Your task to perform on an android device: What's the weather going to be tomorrow? Image 0: 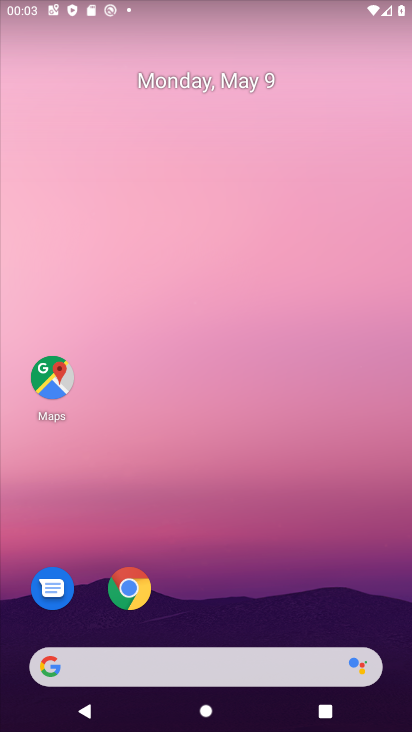
Step 0: click (211, 670)
Your task to perform on an android device: What's the weather going to be tomorrow? Image 1: 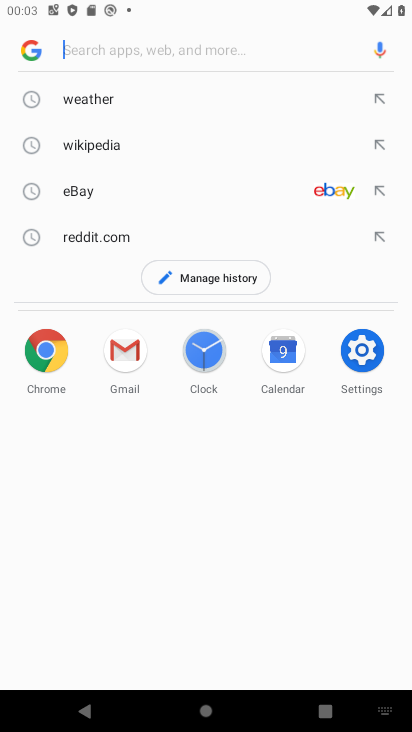
Step 1: click (91, 99)
Your task to perform on an android device: What's the weather going to be tomorrow? Image 2: 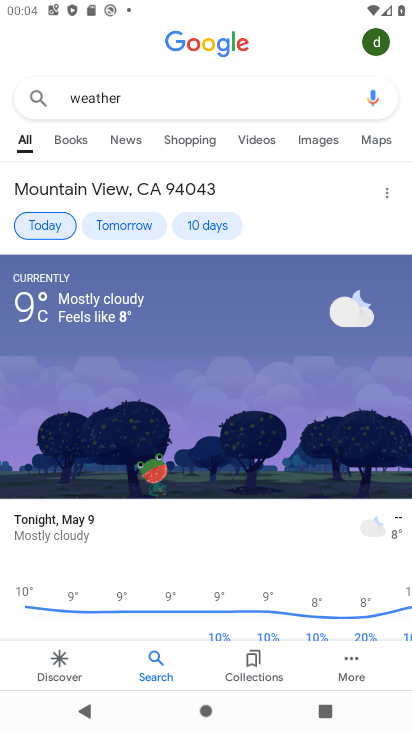
Step 2: click (119, 226)
Your task to perform on an android device: What's the weather going to be tomorrow? Image 3: 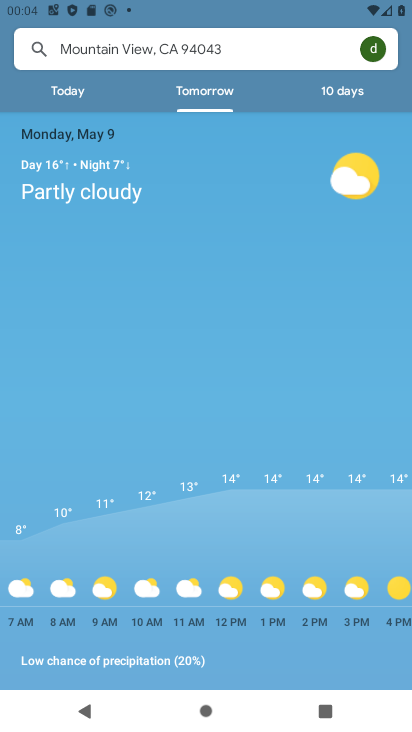
Step 3: task complete